Your task to perform on an android device: Open the web browser Image 0: 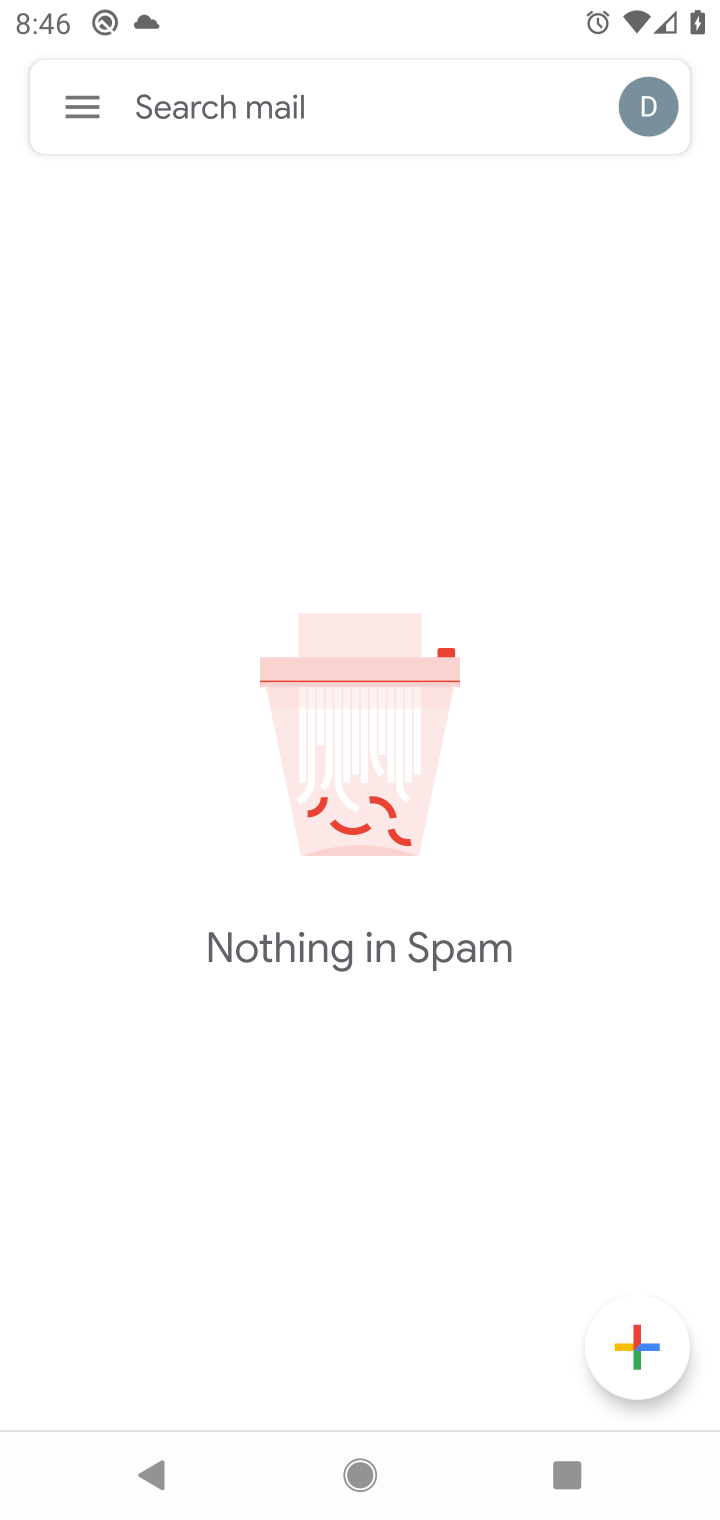
Step 0: press home button
Your task to perform on an android device: Open the web browser Image 1: 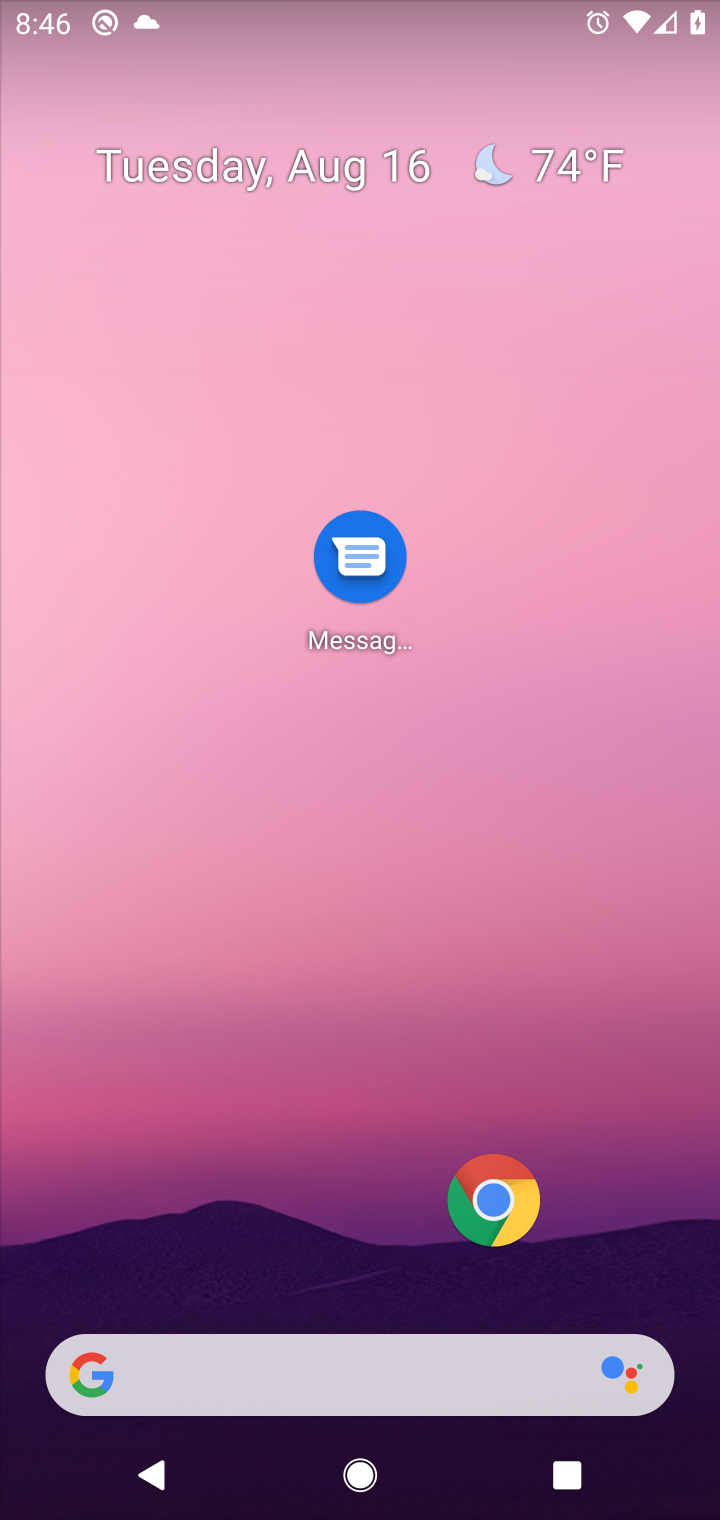
Step 1: task complete